Your task to perform on an android device: check data usage Image 0: 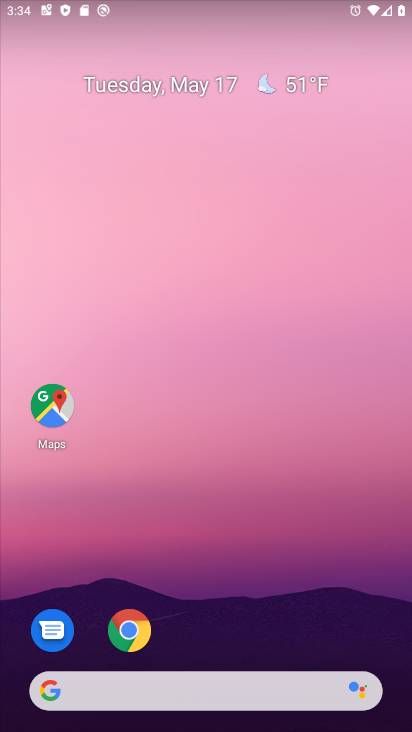
Step 0: drag from (244, 562) to (323, 87)
Your task to perform on an android device: check data usage Image 1: 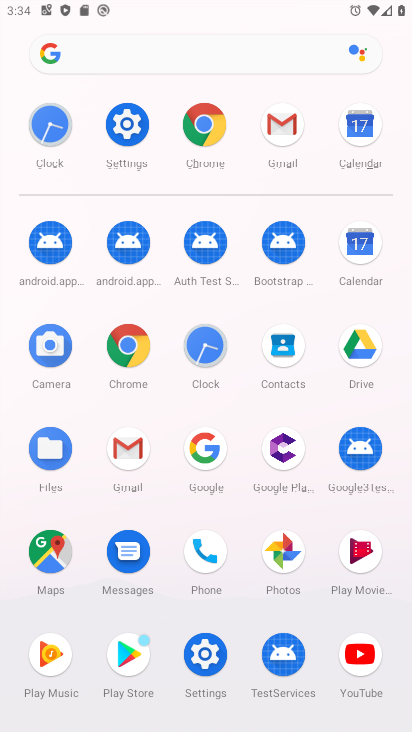
Step 1: click (116, 113)
Your task to perform on an android device: check data usage Image 2: 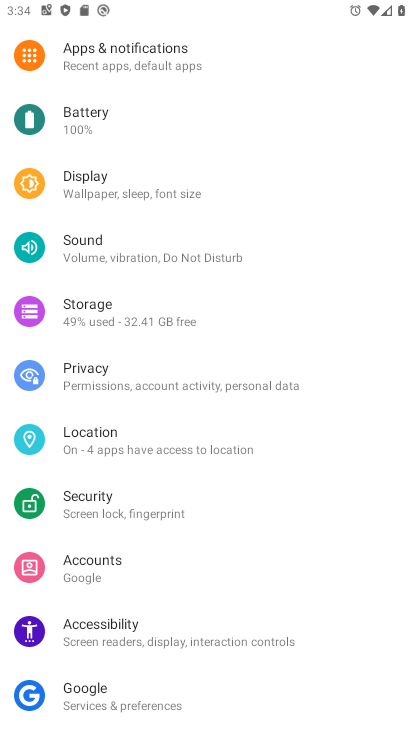
Step 2: drag from (219, 169) to (166, 689)
Your task to perform on an android device: check data usage Image 3: 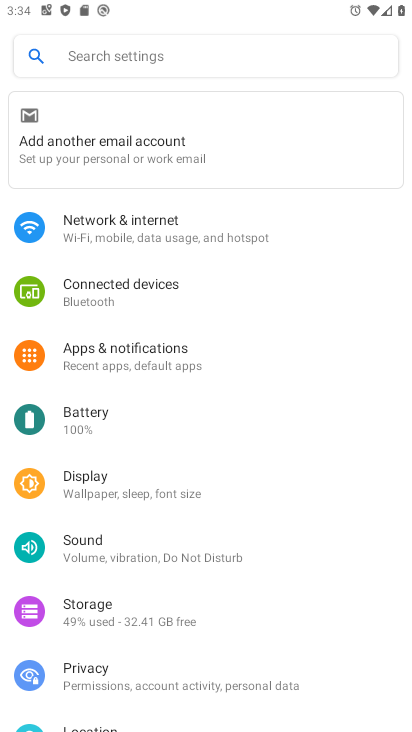
Step 3: click (135, 244)
Your task to perform on an android device: check data usage Image 4: 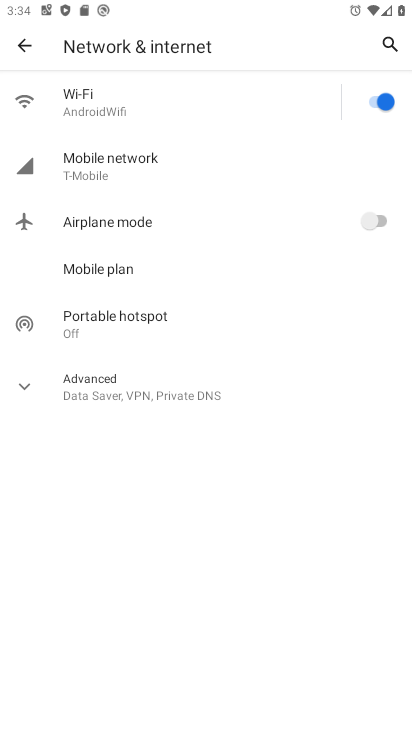
Step 4: click (118, 171)
Your task to perform on an android device: check data usage Image 5: 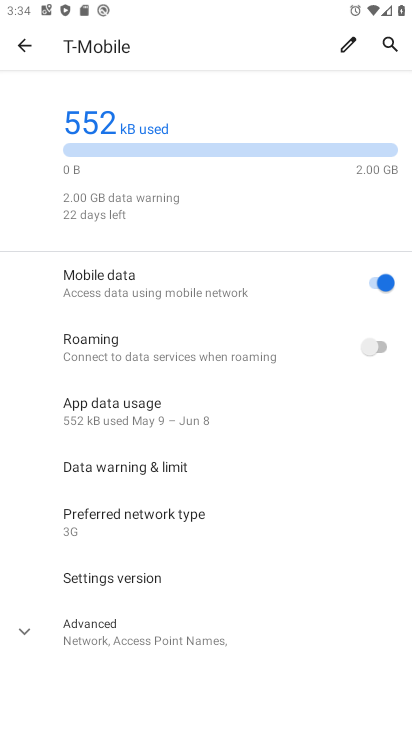
Step 5: click (174, 415)
Your task to perform on an android device: check data usage Image 6: 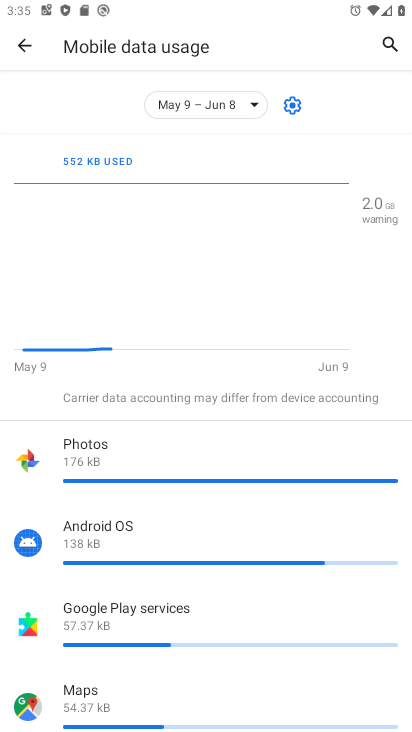
Step 6: task complete